Your task to perform on an android device: change timer sound Image 0: 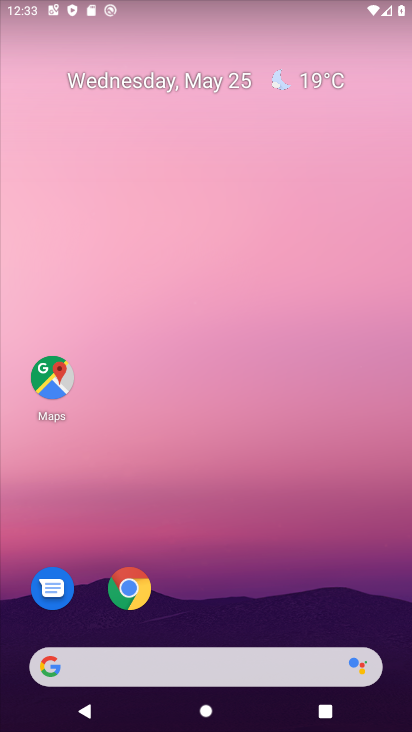
Step 0: drag from (178, 614) to (232, 158)
Your task to perform on an android device: change timer sound Image 1: 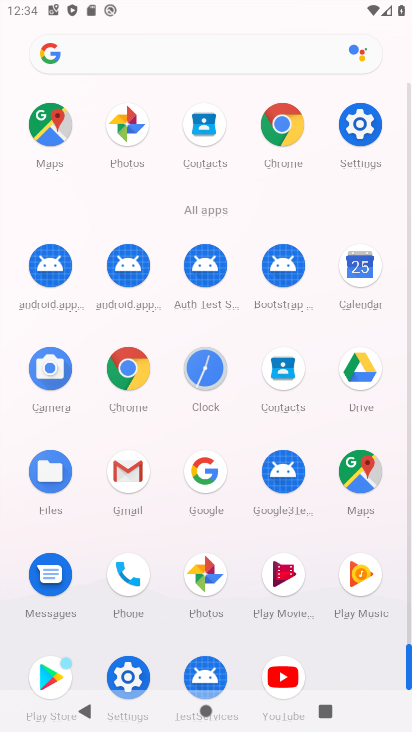
Step 1: click (188, 377)
Your task to perform on an android device: change timer sound Image 2: 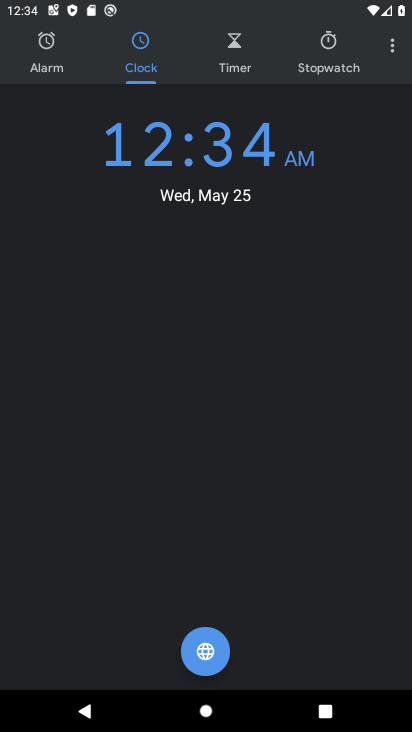
Step 2: click (387, 55)
Your task to perform on an android device: change timer sound Image 3: 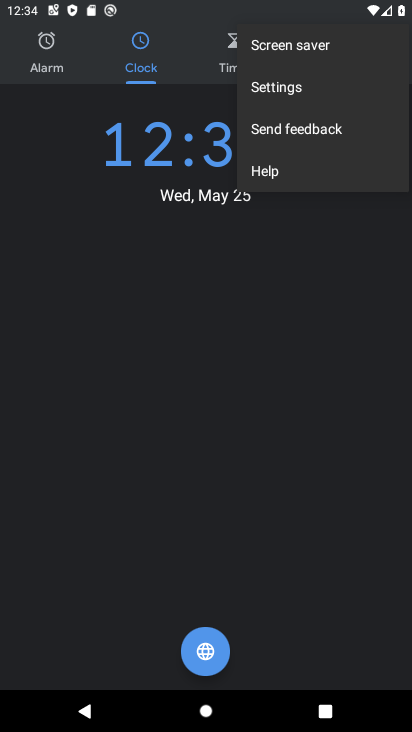
Step 3: click (360, 83)
Your task to perform on an android device: change timer sound Image 4: 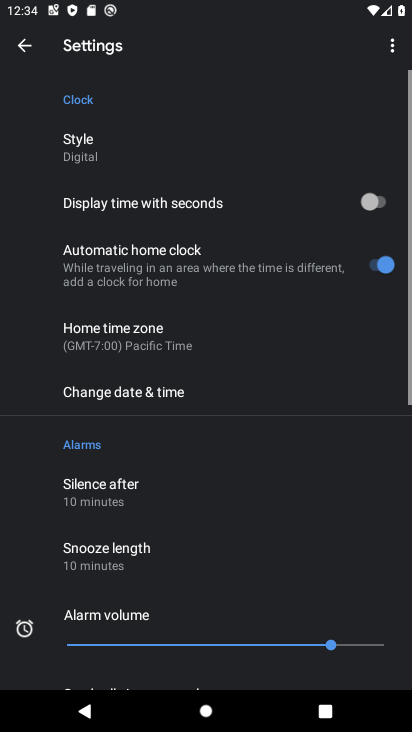
Step 4: drag from (240, 520) to (310, 113)
Your task to perform on an android device: change timer sound Image 5: 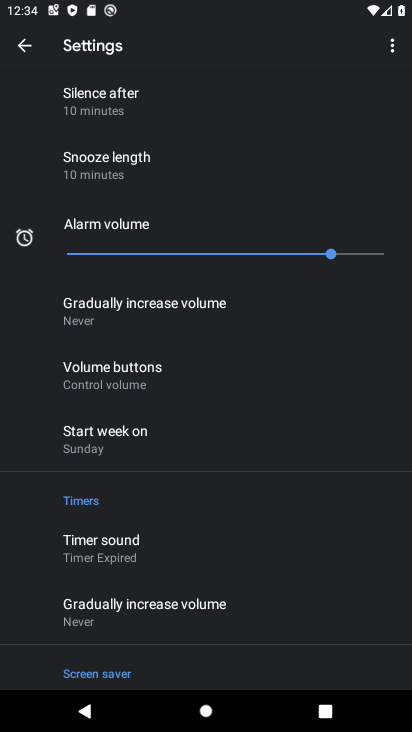
Step 5: click (206, 557)
Your task to perform on an android device: change timer sound Image 6: 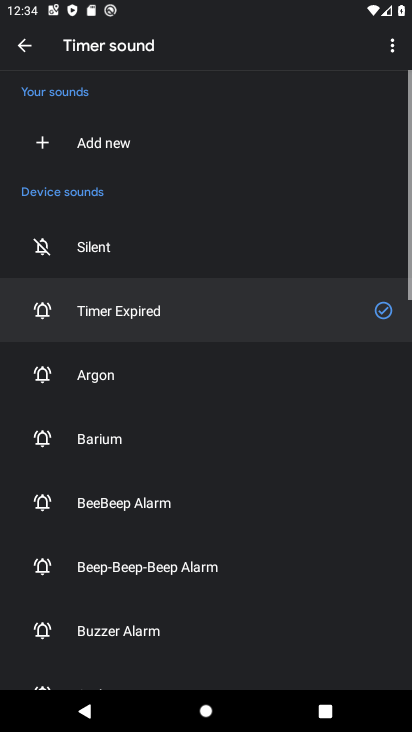
Step 6: drag from (158, 619) to (227, 290)
Your task to perform on an android device: change timer sound Image 7: 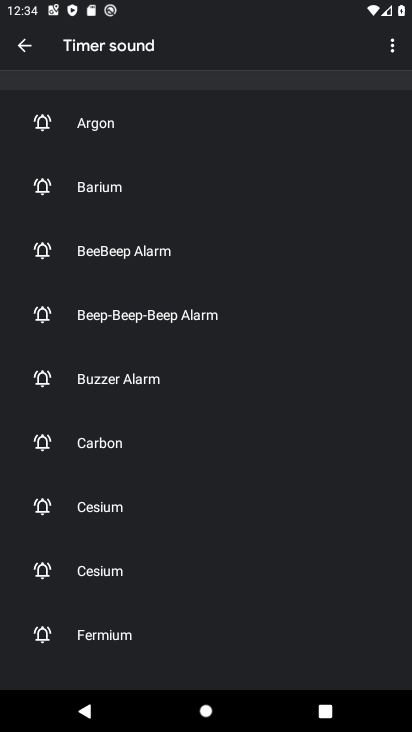
Step 7: click (124, 570)
Your task to perform on an android device: change timer sound Image 8: 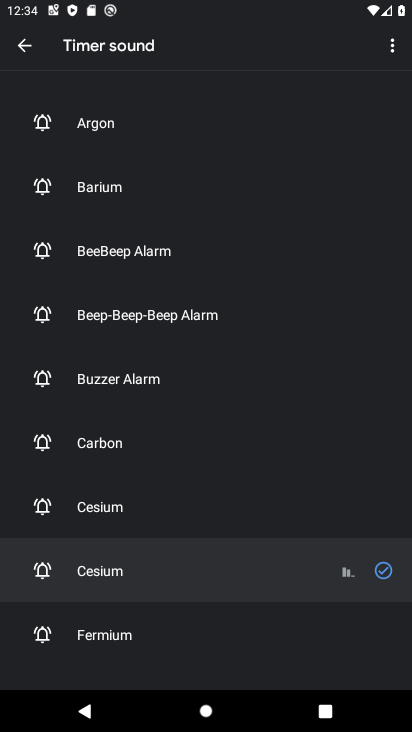
Step 8: task complete